Your task to perform on an android device: Open internet settings Image 0: 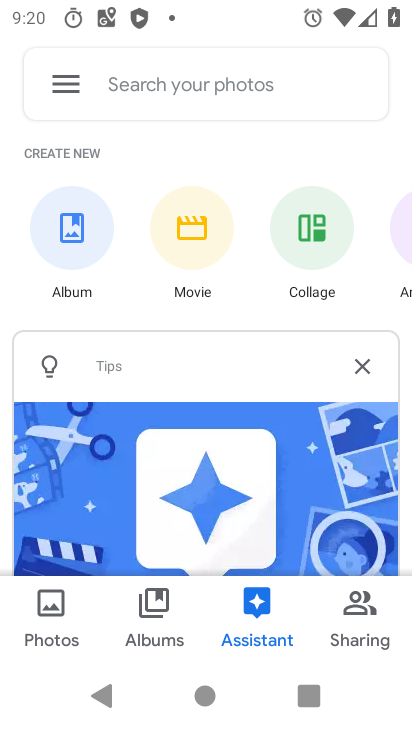
Step 0: press home button
Your task to perform on an android device: Open internet settings Image 1: 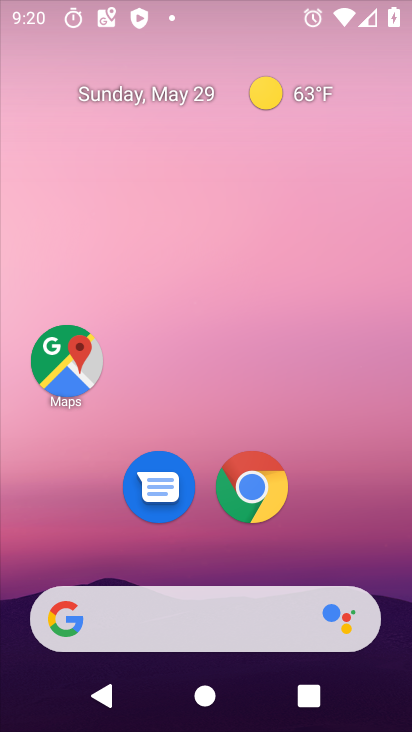
Step 1: drag from (226, 668) to (272, 27)
Your task to perform on an android device: Open internet settings Image 2: 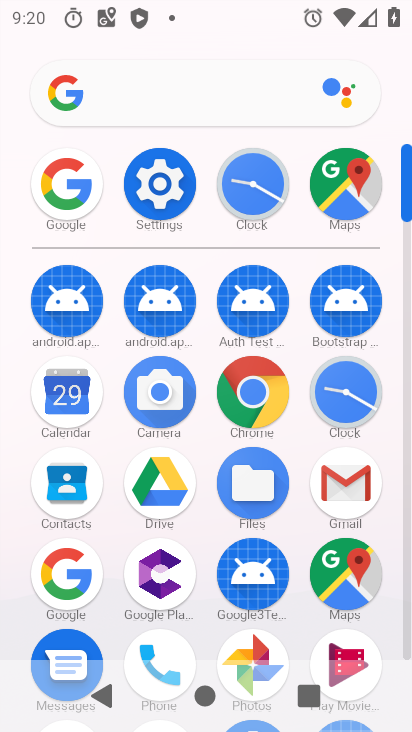
Step 2: click (176, 194)
Your task to perform on an android device: Open internet settings Image 3: 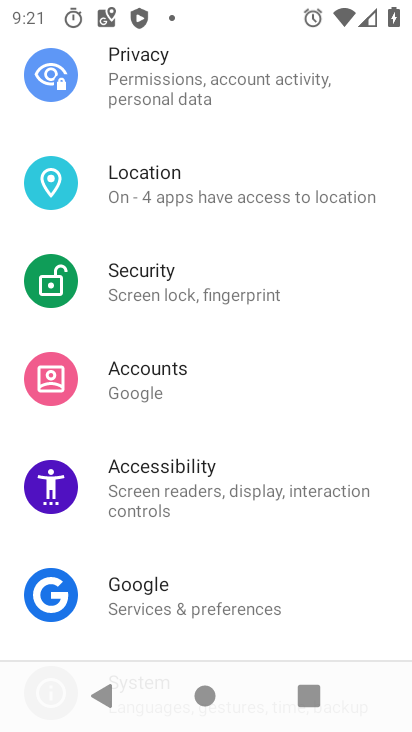
Step 3: drag from (215, 388) to (205, 708)
Your task to perform on an android device: Open internet settings Image 4: 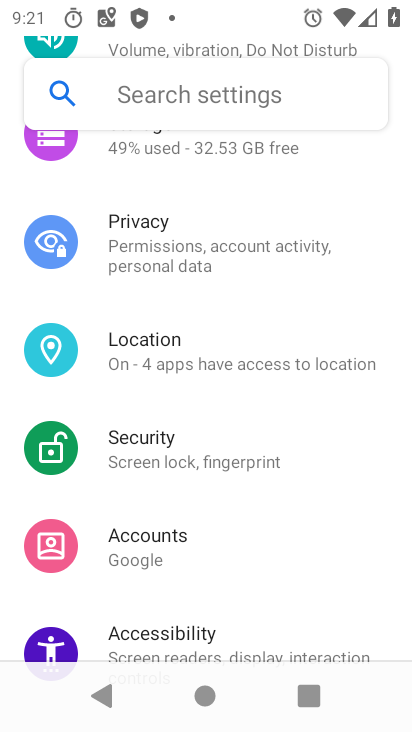
Step 4: drag from (198, 303) to (138, 720)
Your task to perform on an android device: Open internet settings Image 5: 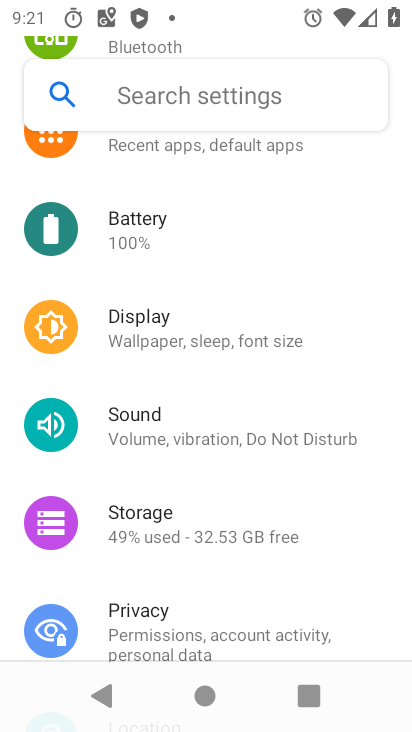
Step 5: drag from (286, 176) to (231, 716)
Your task to perform on an android device: Open internet settings Image 6: 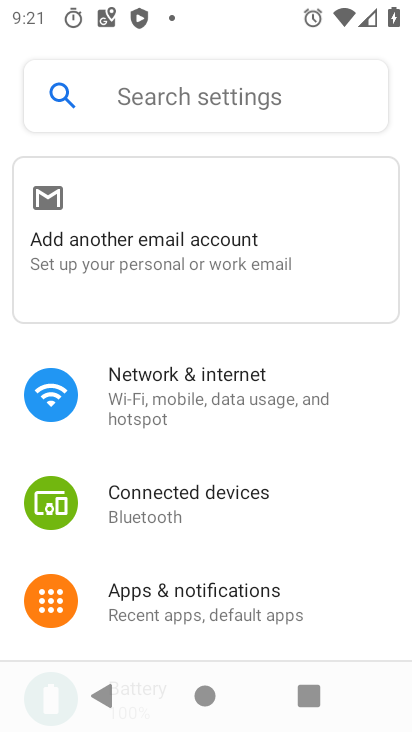
Step 6: click (274, 386)
Your task to perform on an android device: Open internet settings Image 7: 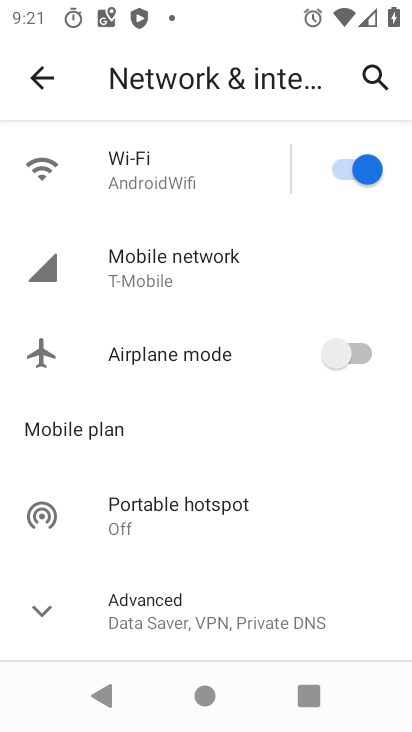
Step 7: click (173, 270)
Your task to perform on an android device: Open internet settings Image 8: 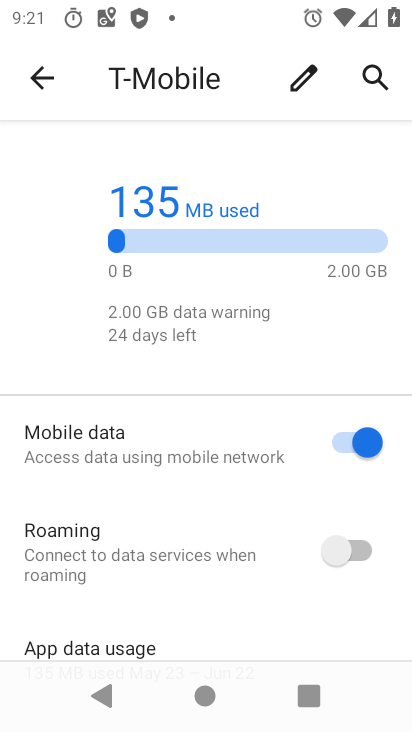
Step 8: task complete